Your task to perform on an android device: Search for "lenovo thinkpad" on target.com, select the first entry, add it to the cart, then select checkout. Image 0: 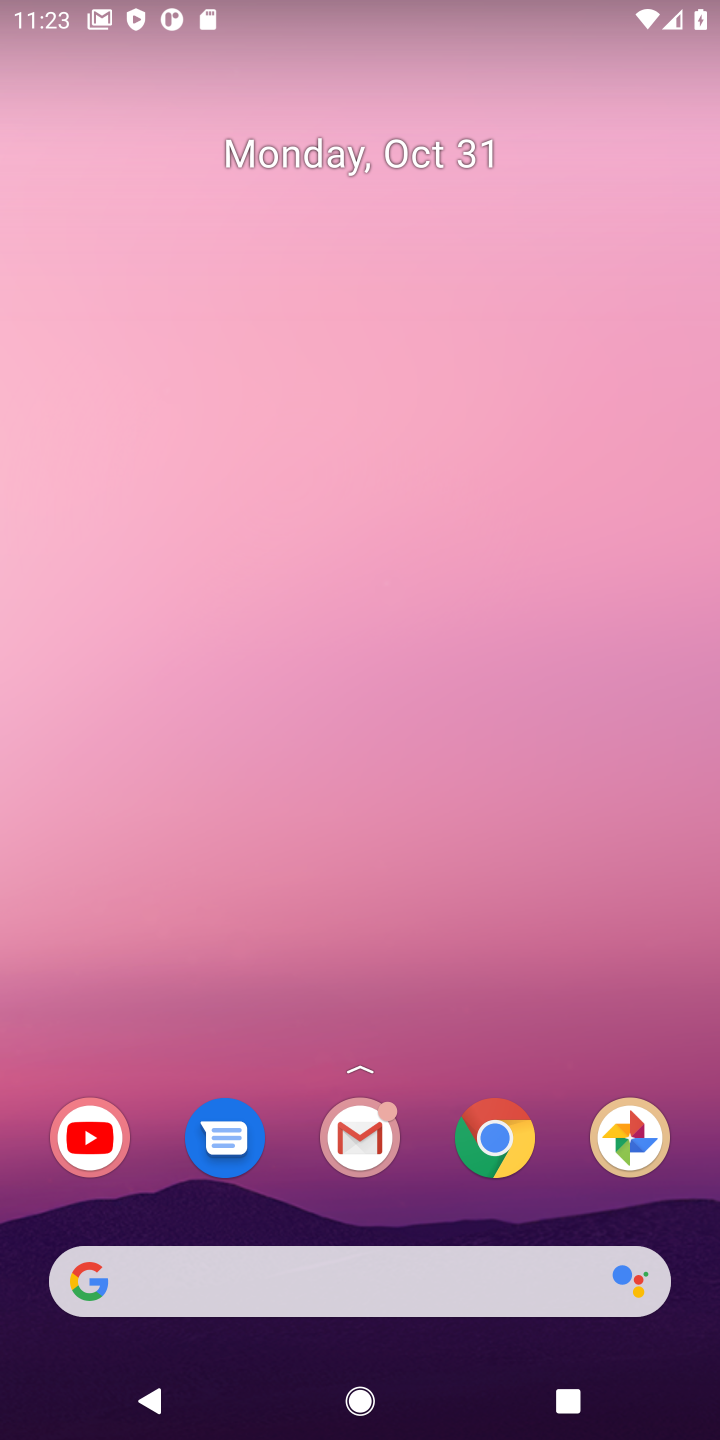
Step 0: click (498, 1124)
Your task to perform on an android device: Search for "lenovo thinkpad" on target.com, select the first entry, add it to the cart, then select checkout. Image 1: 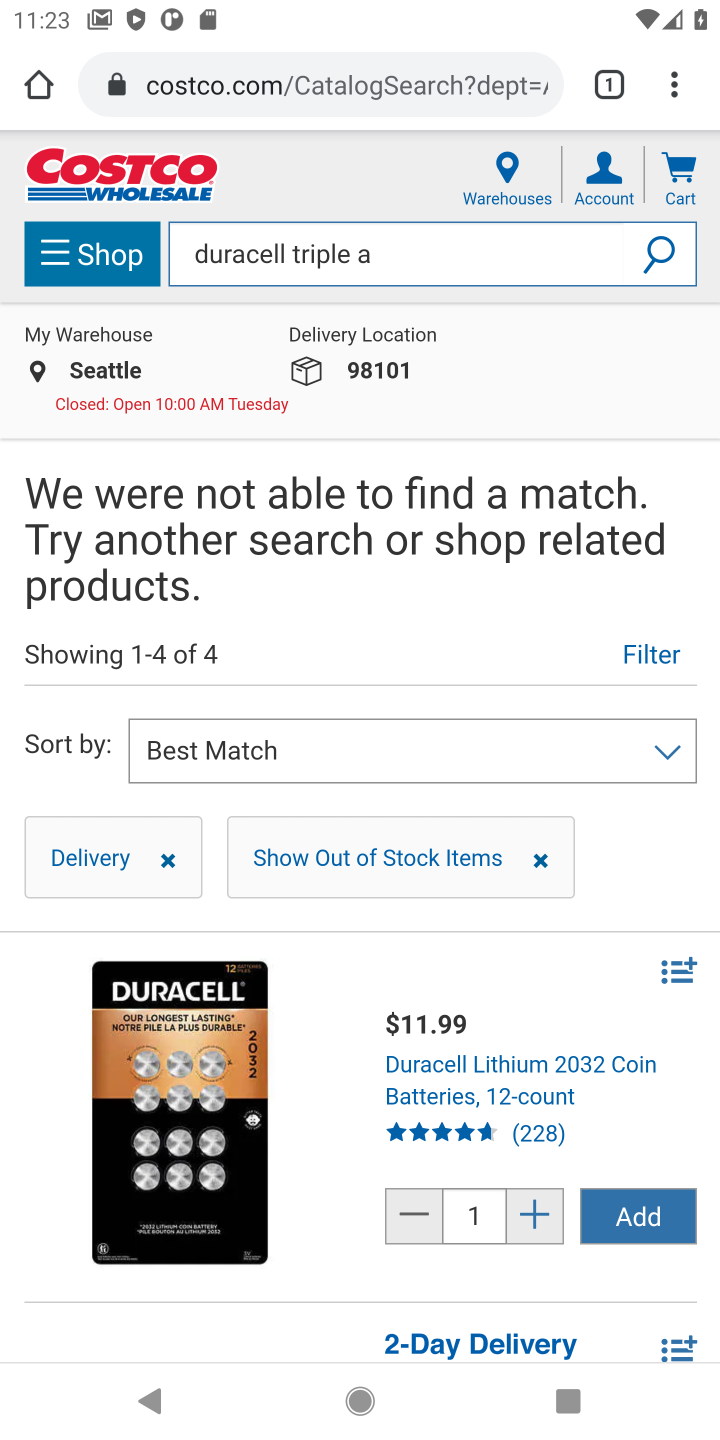
Step 1: click (374, 75)
Your task to perform on an android device: Search for "lenovo thinkpad" on target.com, select the first entry, add it to the cart, then select checkout. Image 2: 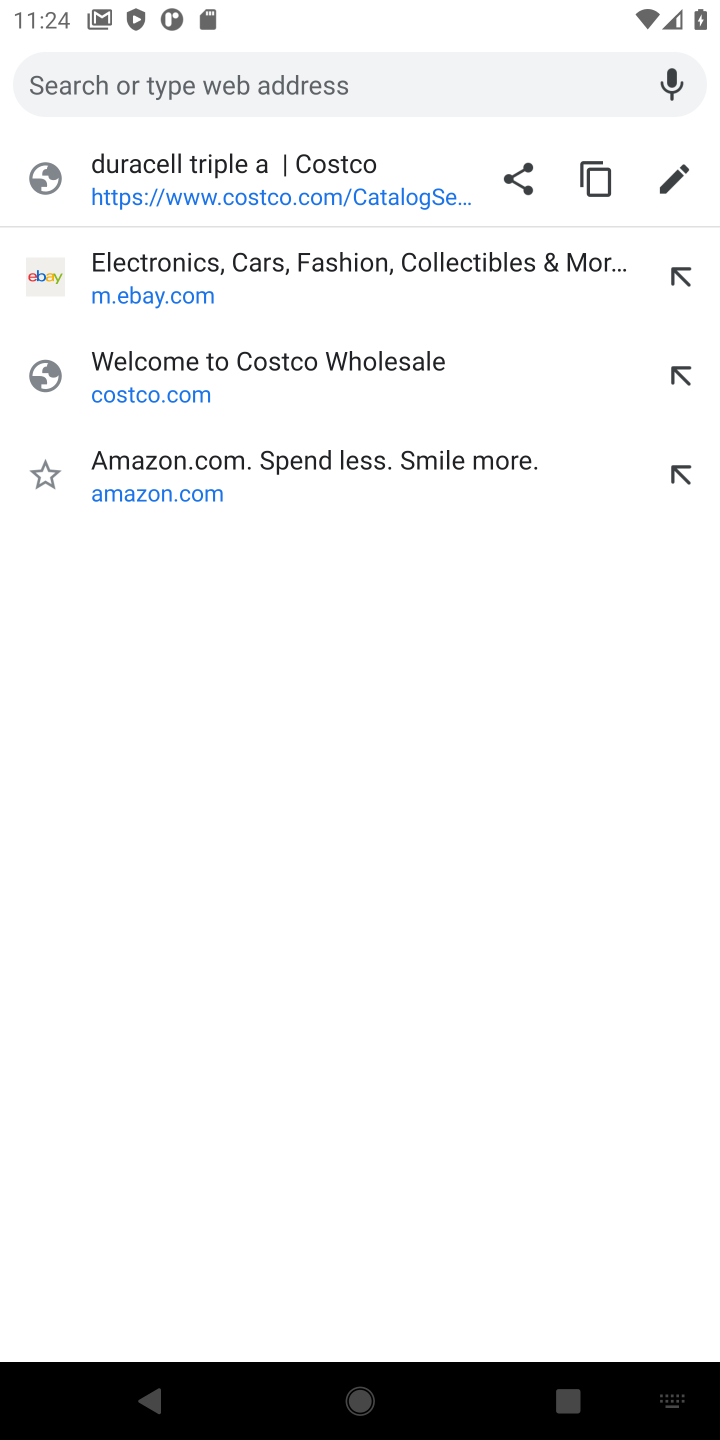
Step 2: type "target"
Your task to perform on an android device: Search for "lenovo thinkpad" on target.com, select the first entry, add it to the cart, then select checkout. Image 3: 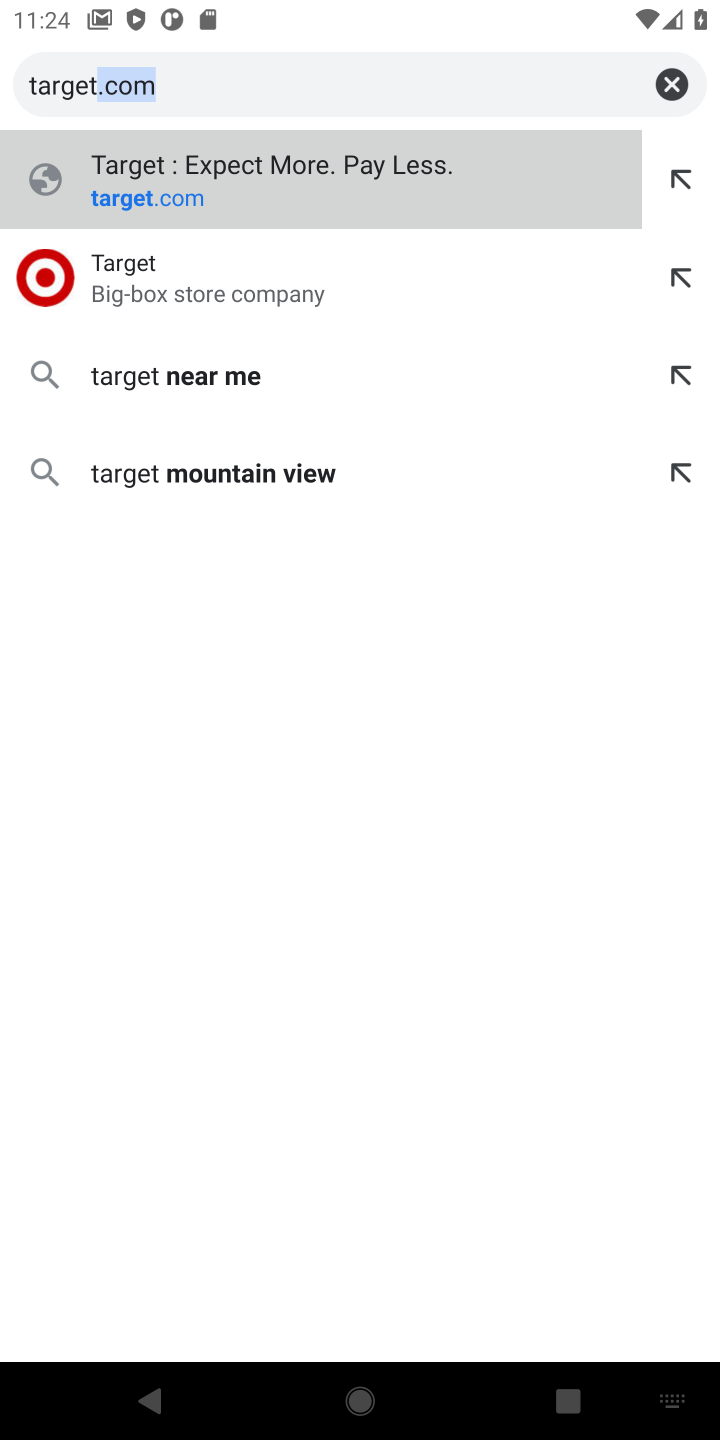
Step 3: click (222, 294)
Your task to perform on an android device: Search for "lenovo thinkpad" on target.com, select the first entry, add it to the cart, then select checkout. Image 4: 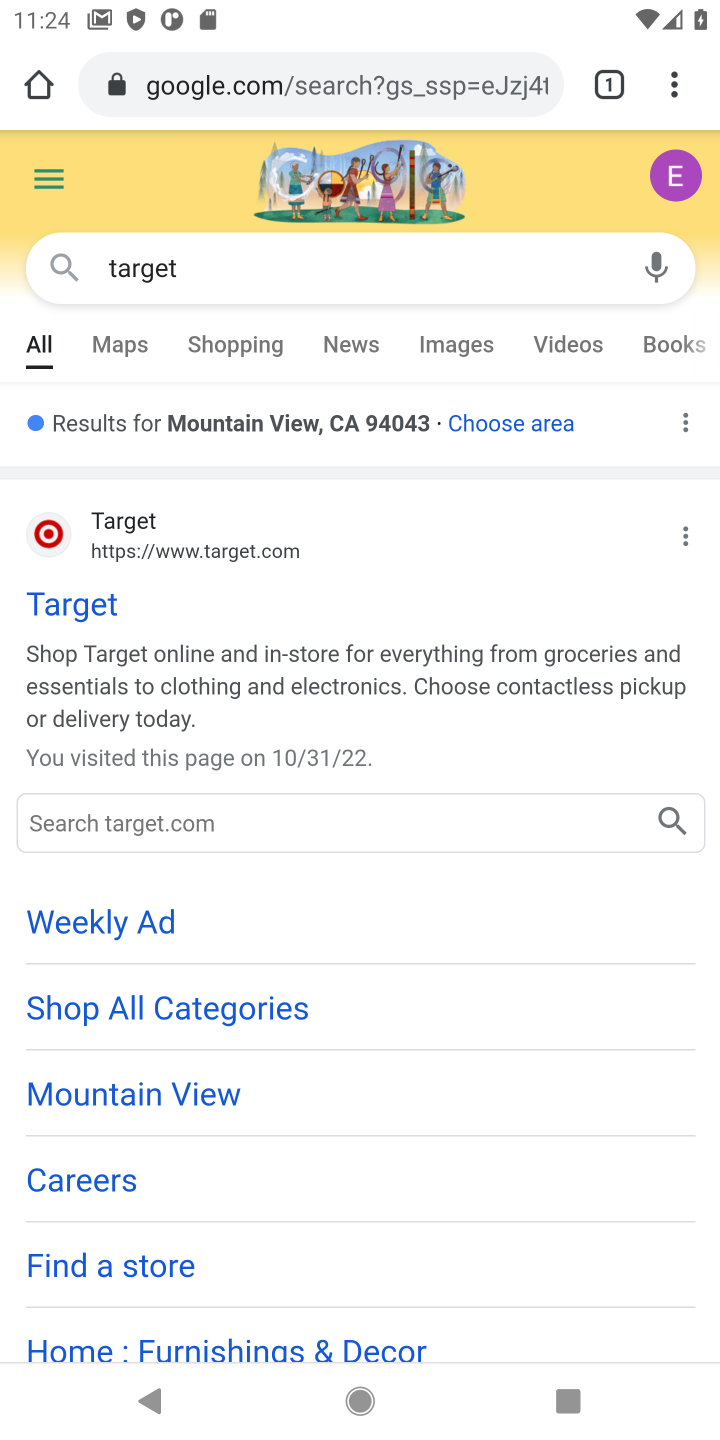
Step 4: click (105, 622)
Your task to perform on an android device: Search for "lenovo thinkpad" on target.com, select the first entry, add it to the cart, then select checkout. Image 5: 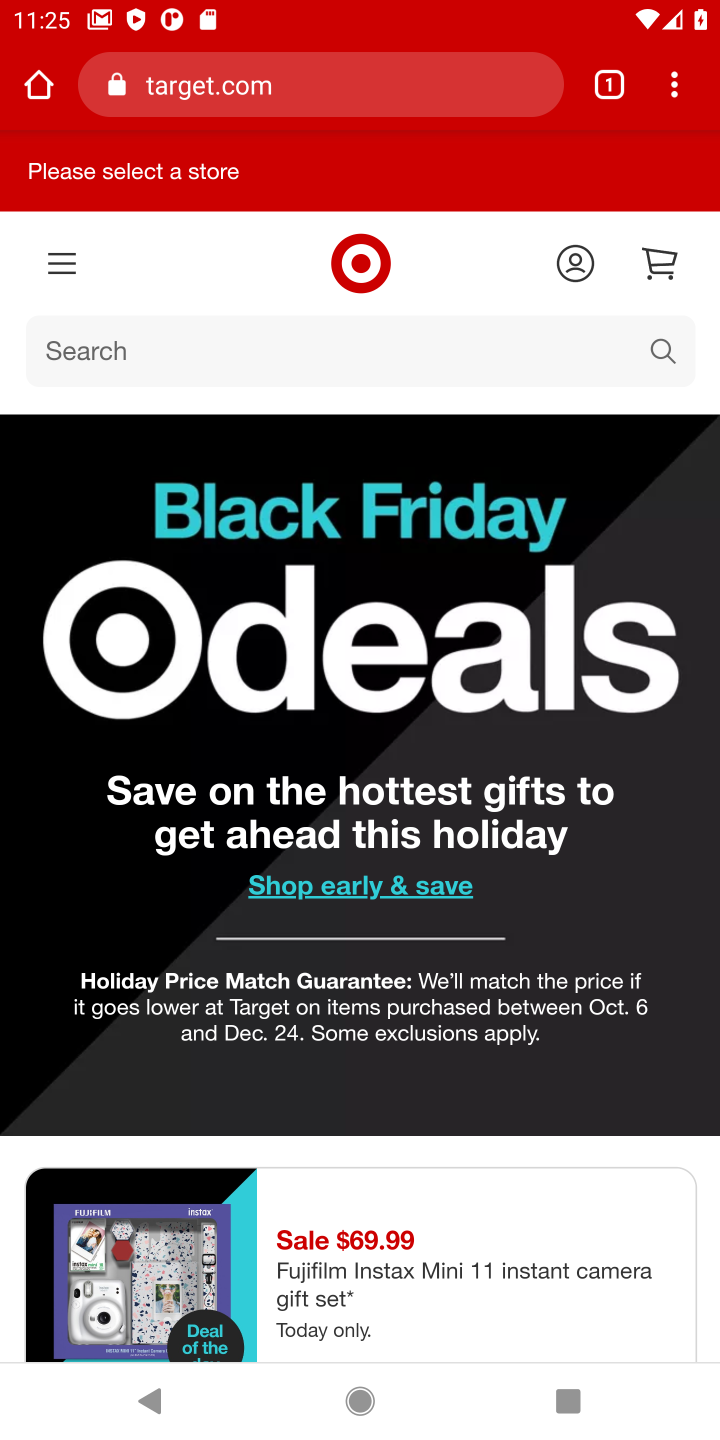
Step 5: click (176, 361)
Your task to perform on an android device: Search for "lenovo thinkpad" on target.com, select the first entry, add it to the cart, then select checkout. Image 6: 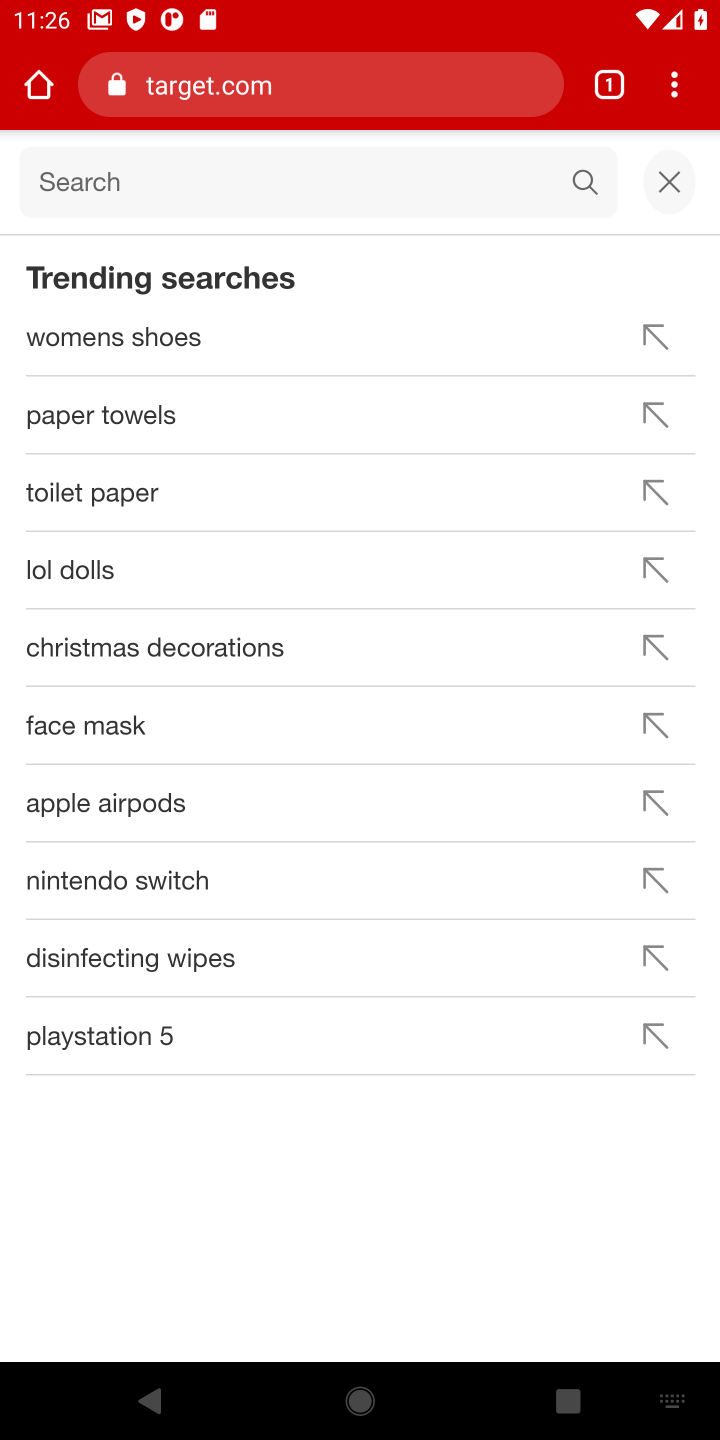
Step 6: type "lenovo thinkpad"
Your task to perform on an android device: Search for "lenovo thinkpad" on target.com, select the first entry, add it to the cart, then select checkout. Image 7: 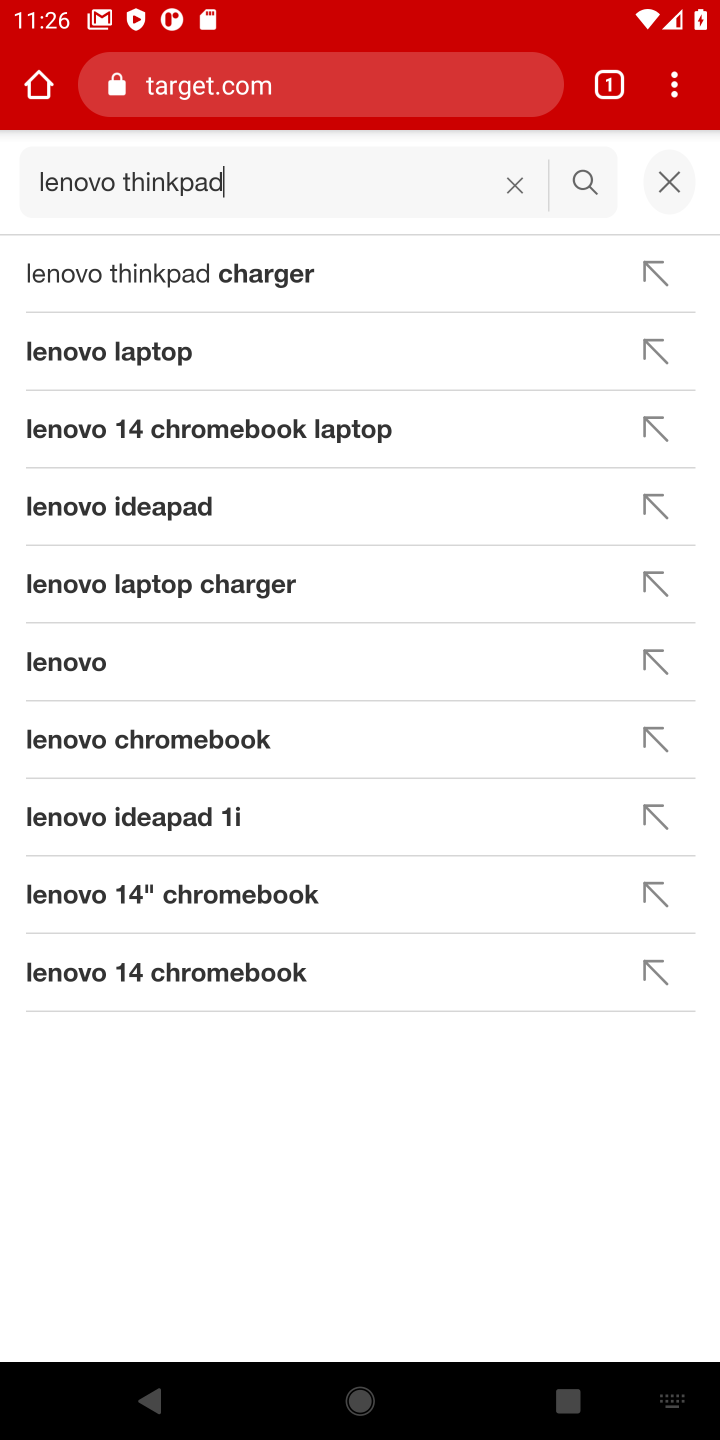
Step 7: click (599, 184)
Your task to perform on an android device: Search for "lenovo thinkpad" on target.com, select the first entry, add it to the cart, then select checkout. Image 8: 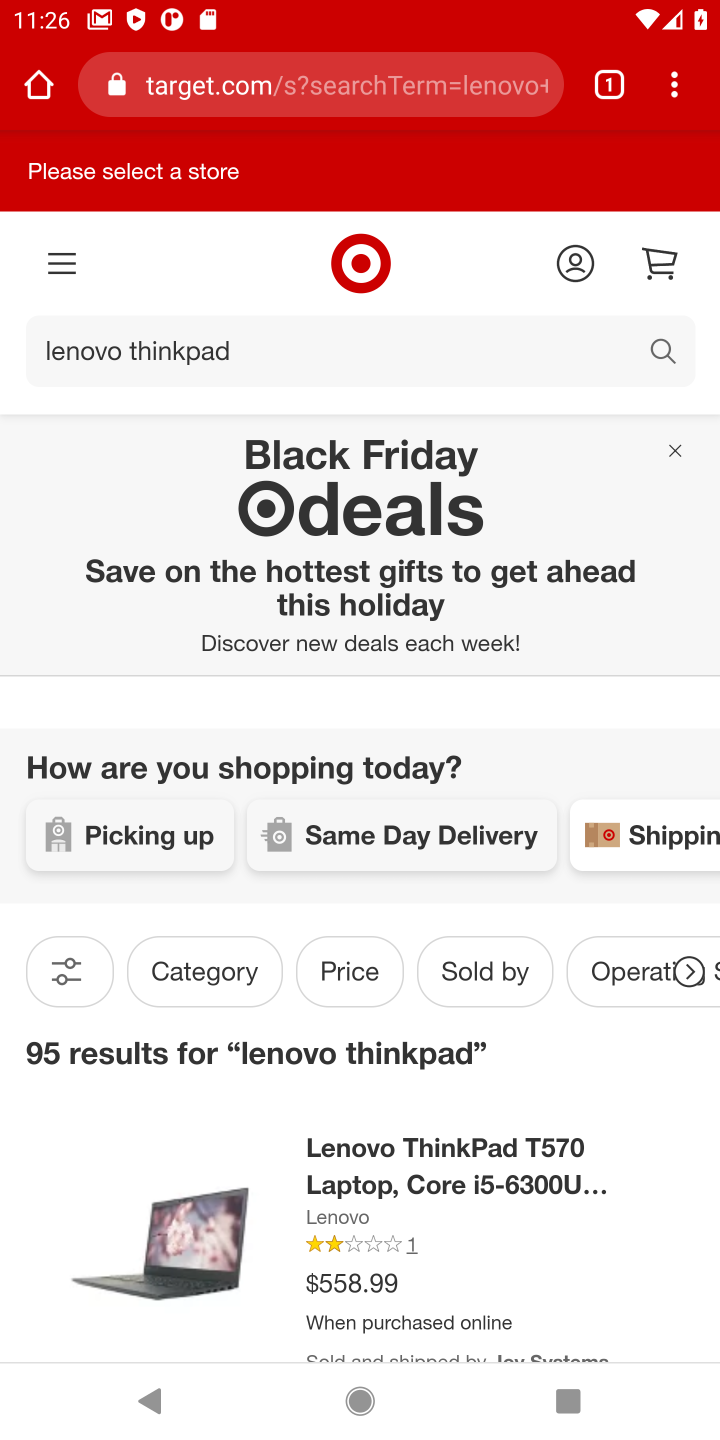
Step 8: click (407, 1160)
Your task to perform on an android device: Search for "lenovo thinkpad" on target.com, select the first entry, add it to the cart, then select checkout. Image 9: 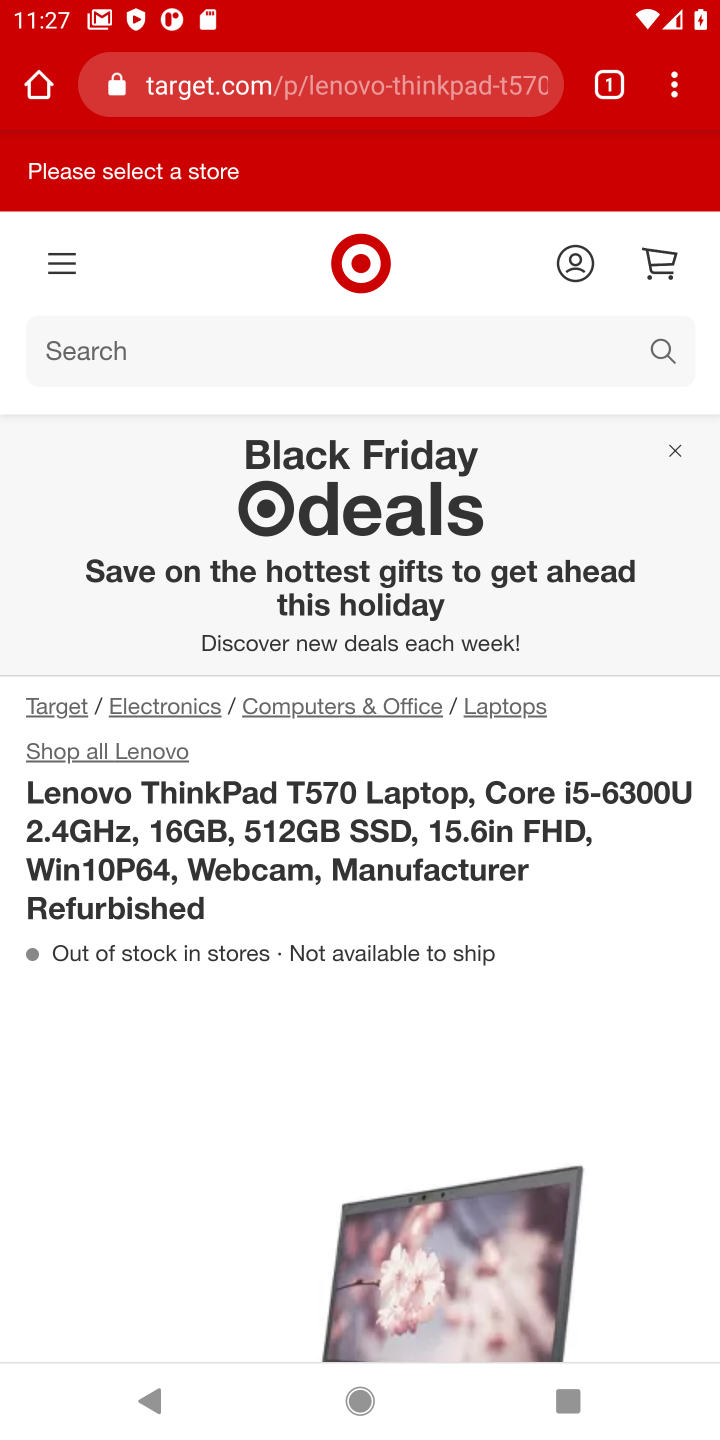
Step 9: drag from (147, 1213) to (238, 50)
Your task to perform on an android device: Search for "lenovo thinkpad" on target.com, select the first entry, add it to the cart, then select checkout. Image 10: 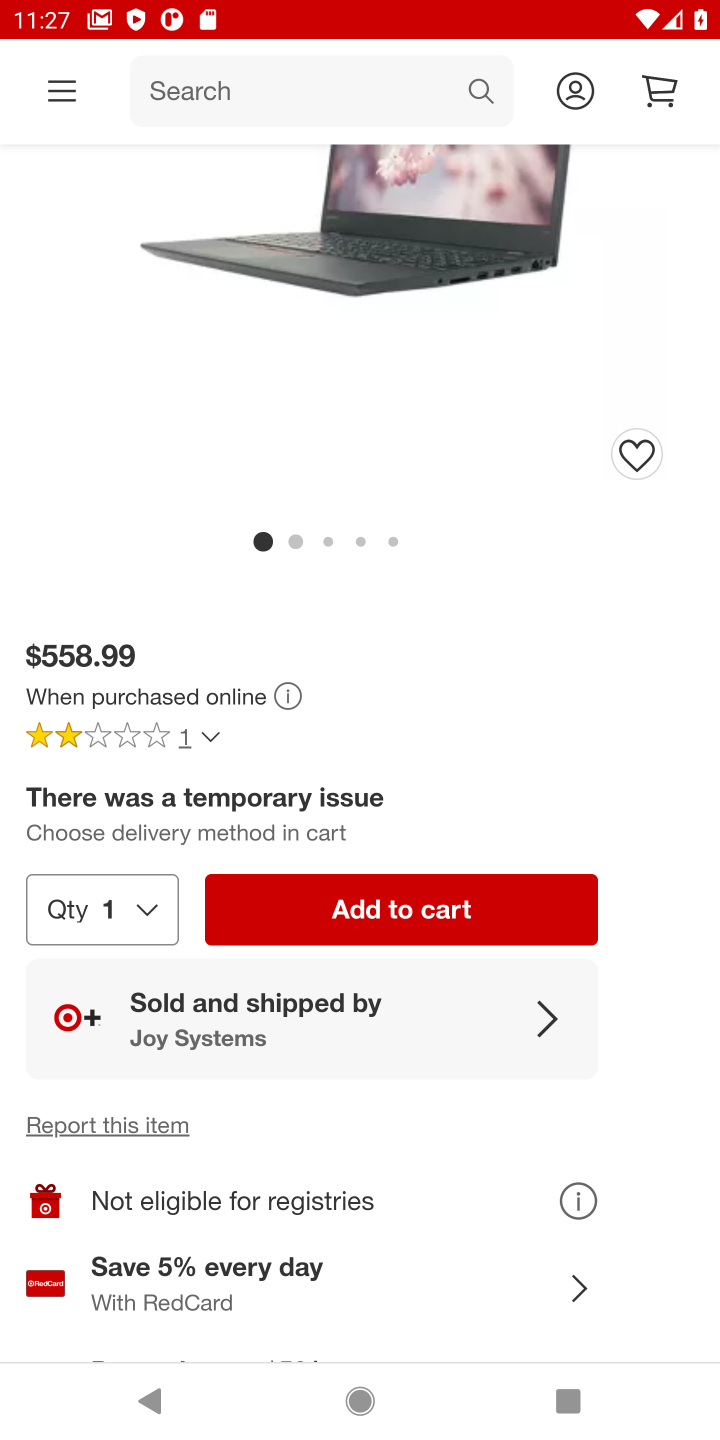
Step 10: drag from (423, 1255) to (463, 1172)
Your task to perform on an android device: Search for "lenovo thinkpad" on target.com, select the first entry, add it to the cart, then select checkout. Image 11: 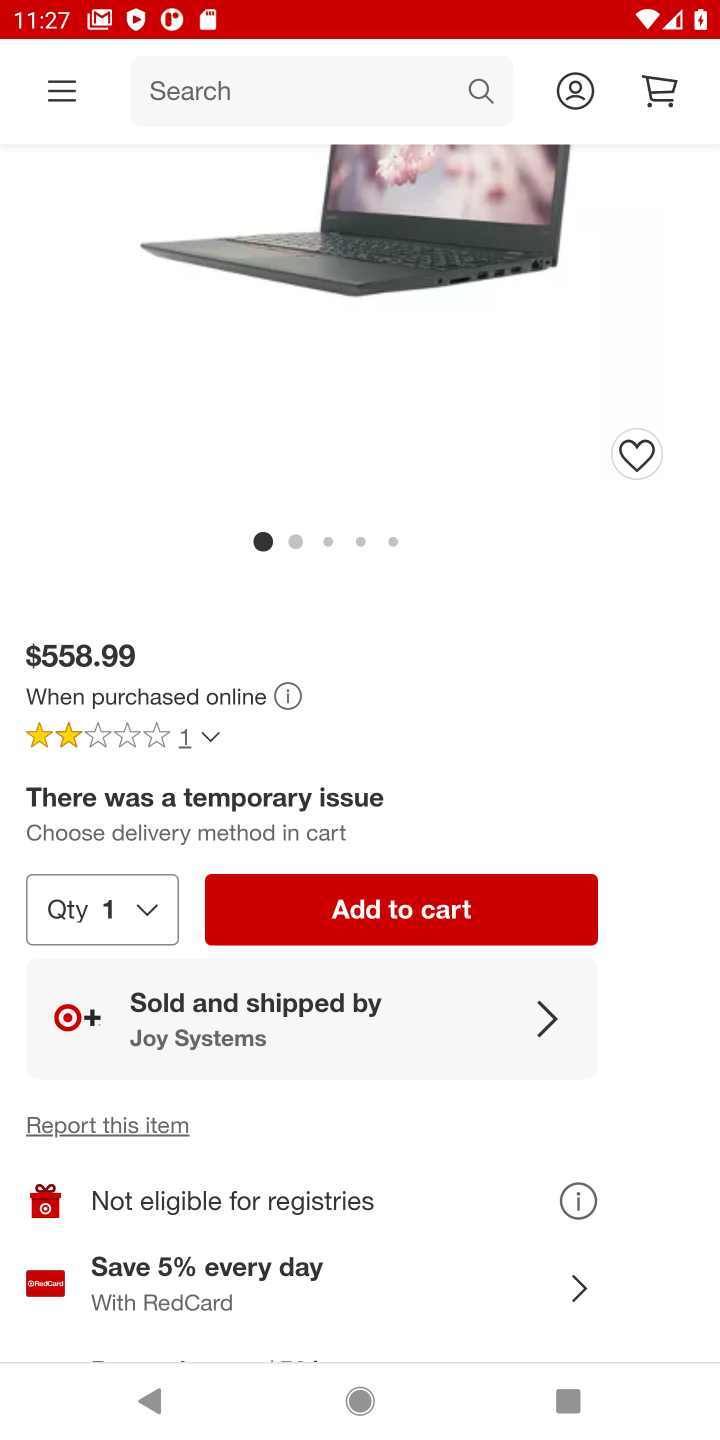
Step 11: click (423, 927)
Your task to perform on an android device: Search for "lenovo thinkpad" on target.com, select the first entry, add it to the cart, then select checkout. Image 12: 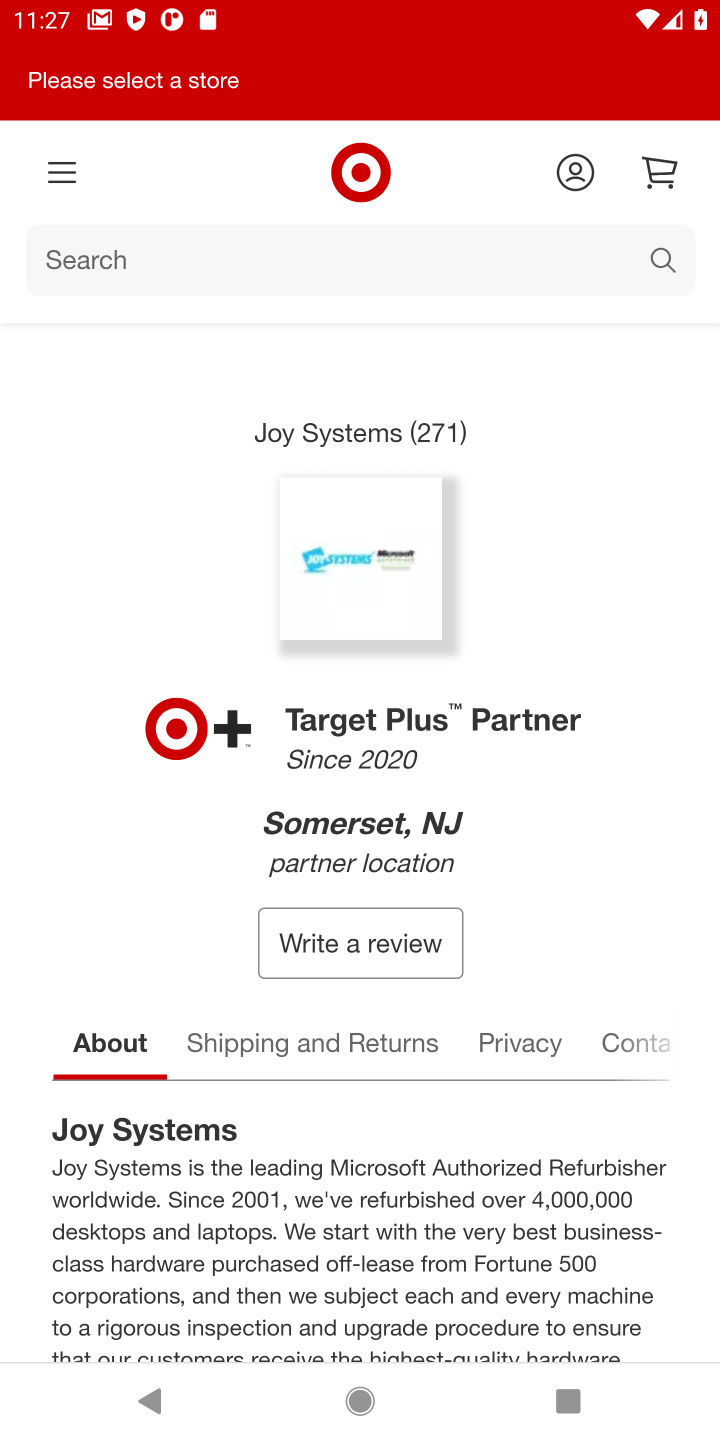
Step 12: press back button
Your task to perform on an android device: Search for "lenovo thinkpad" on target.com, select the first entry, add it to the cart, then select checkout. Image 13: 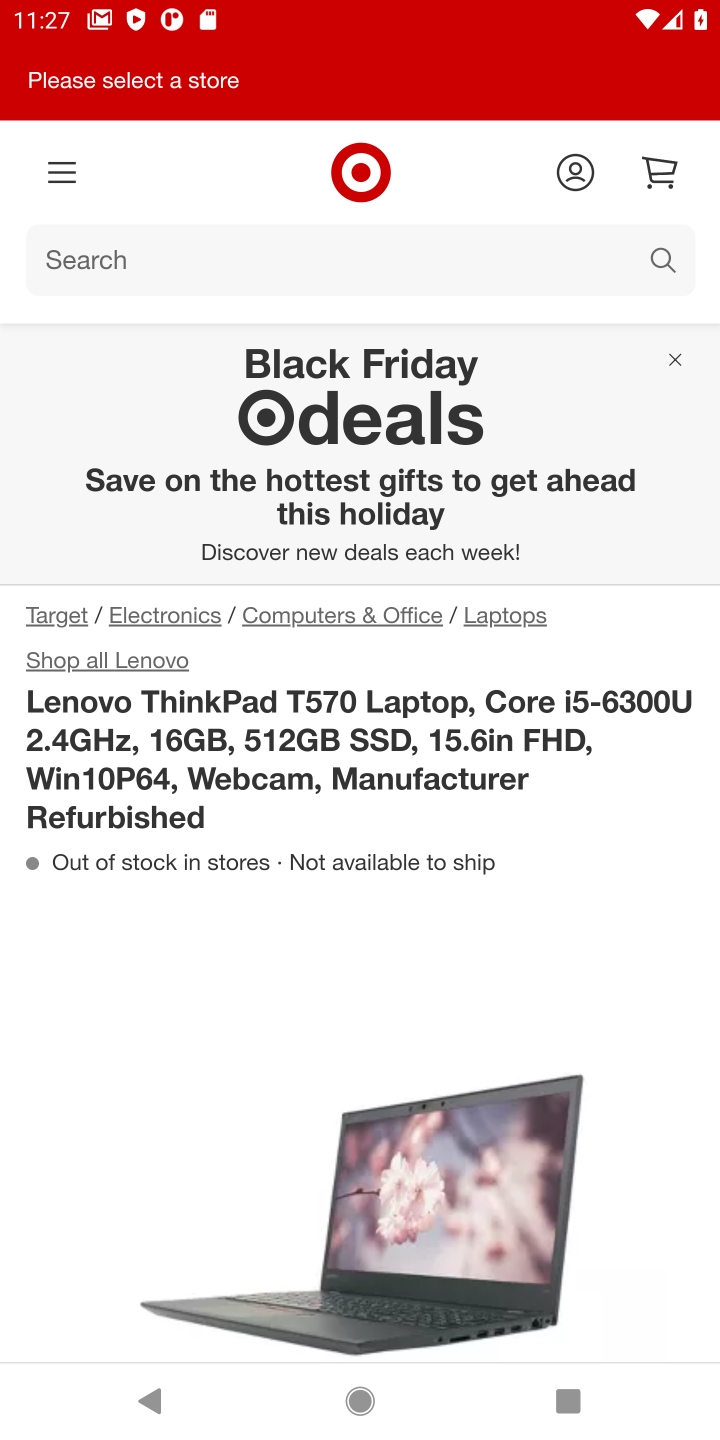
Step 13: drag from (319, 1131) to (278, 173)
Your task to perform on an android device: Search for "lenovo thinkpad" on target.com, select the first entry, add it to the cart, then select checkout. Image 14: 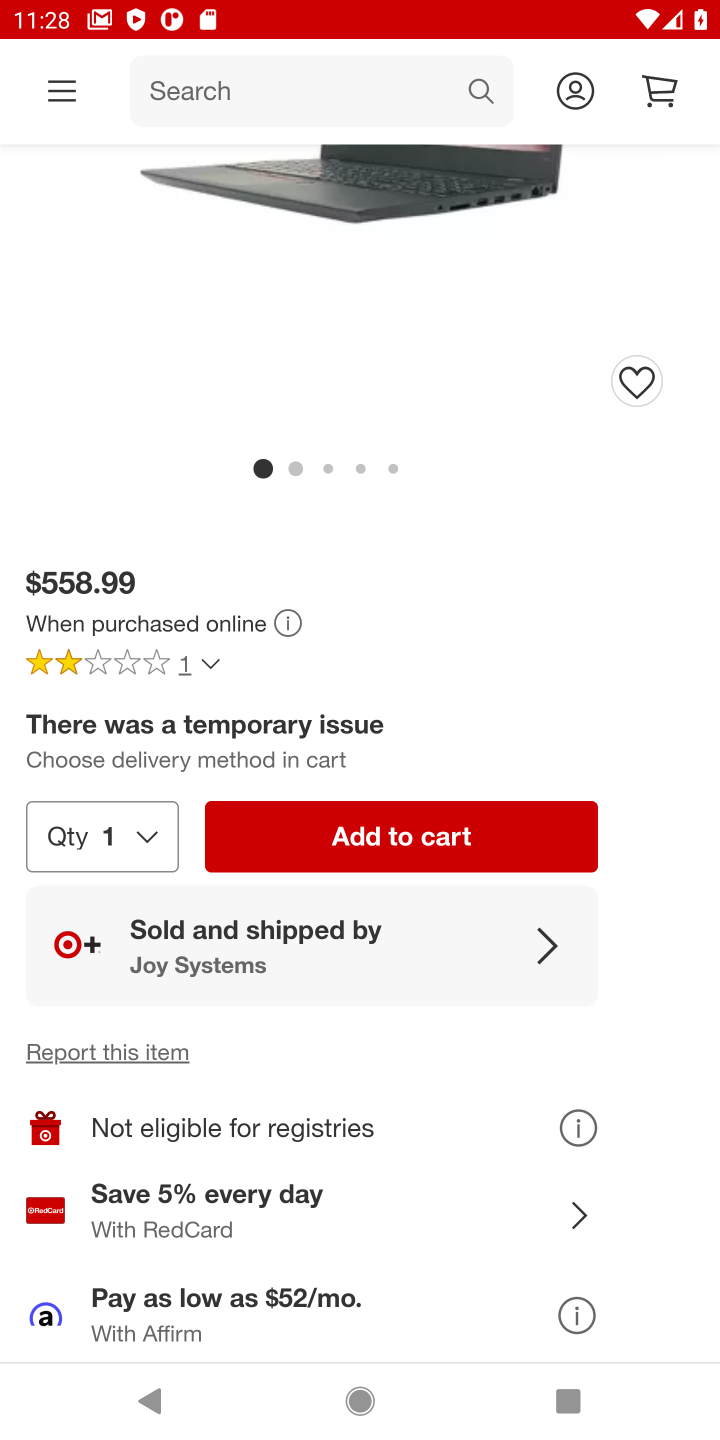
Step 14: click (487, 856)
Your task to perform on an android device: Search for "lenovo thinkpad" on target.com, select the first entry, add it to the cart, then select checkout. Image 15: 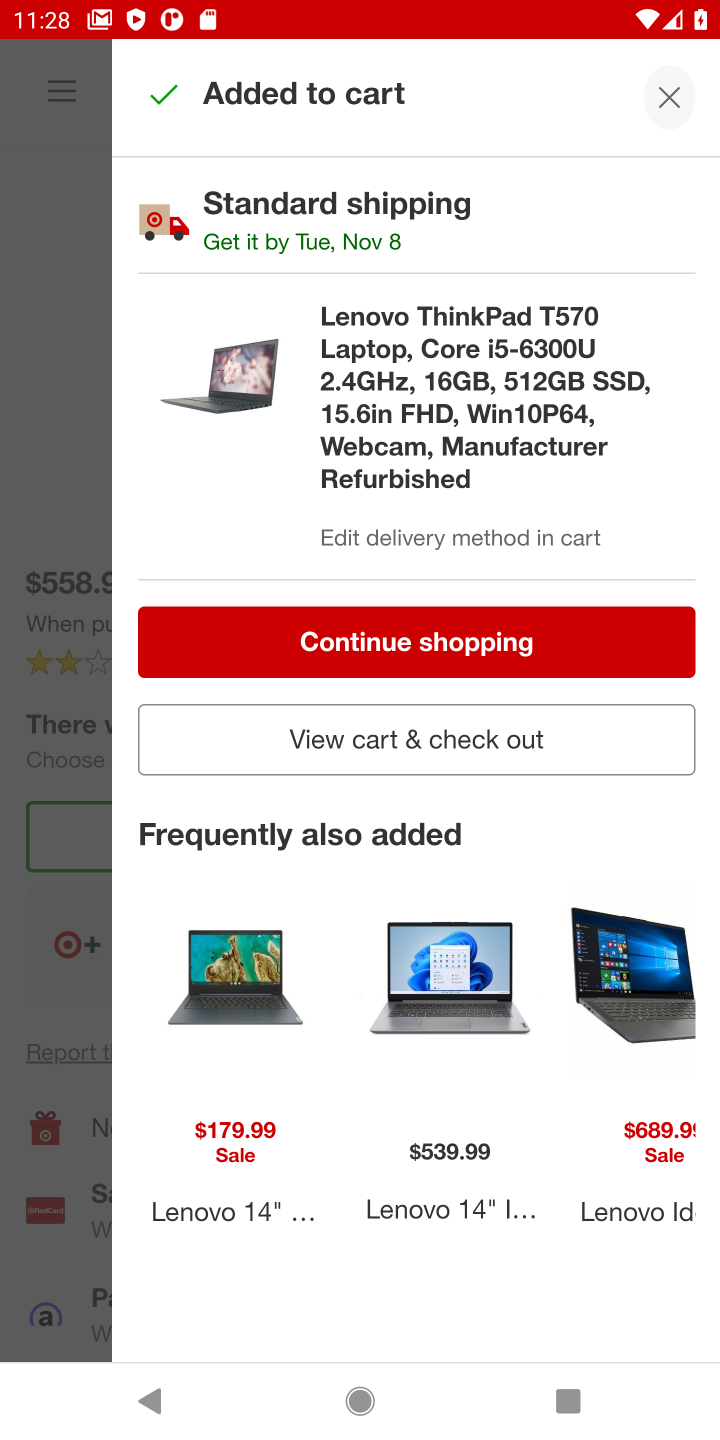
Step 15: task complete